Your task to perform on an android device: Open CNN.com Image 0: 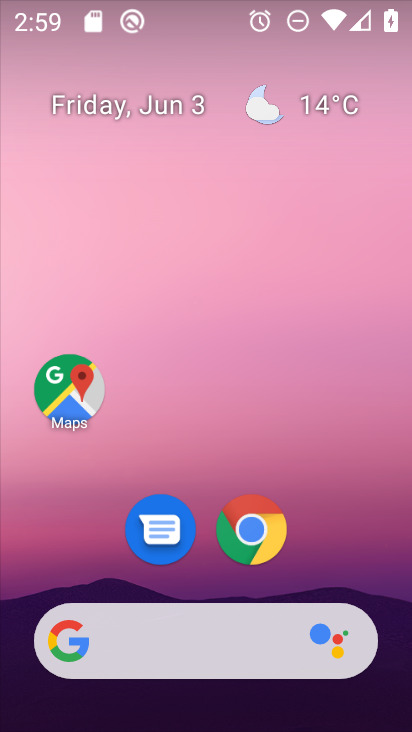
Step 0: drag from (371, 566) to (371, 236)
Your task to perform on an android device: Open CNN.com Image 1: 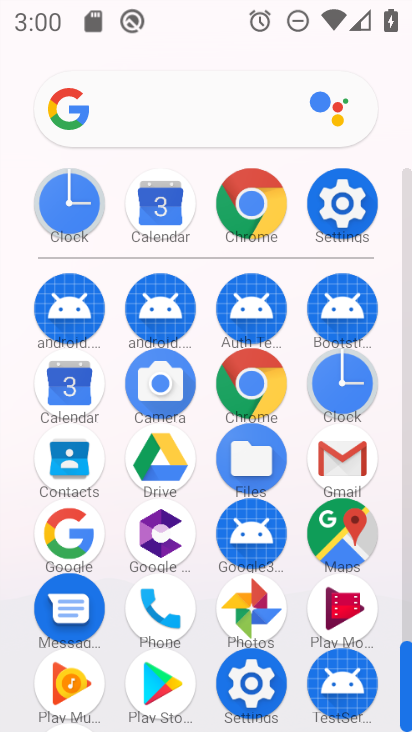
Step 1: click (264, 383)
Your task to perform on an android device: Open CNN.com Image 2: 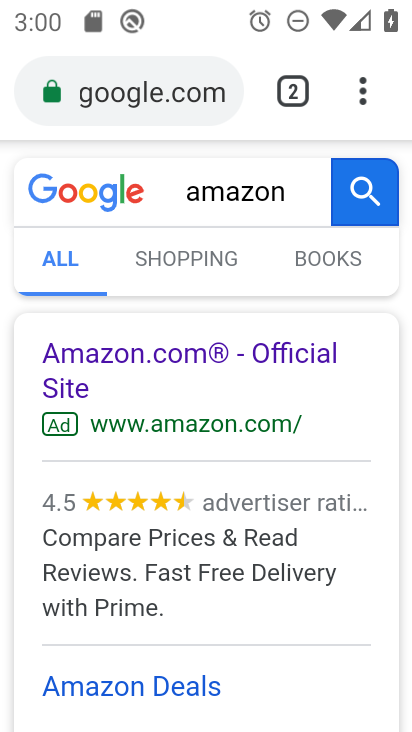
Step 2: click (195, 111)
Your task to perform on an android device: Open CNN.com Image 3: 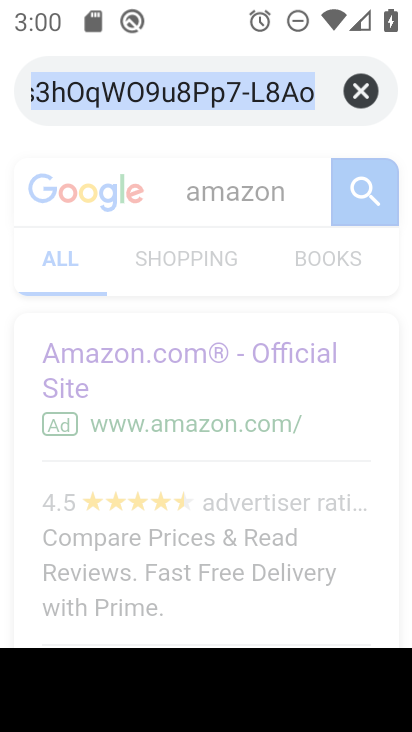
Step 3: click (370, 100)
Your task to perform on an android device: Open CNN.com Image 4: 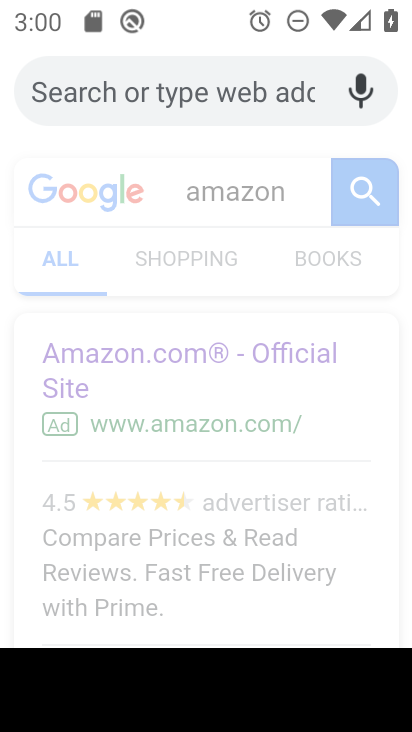
Step 4: type "cnn.com"
Your task to perform on an android device: Open CNN.com Image 5: 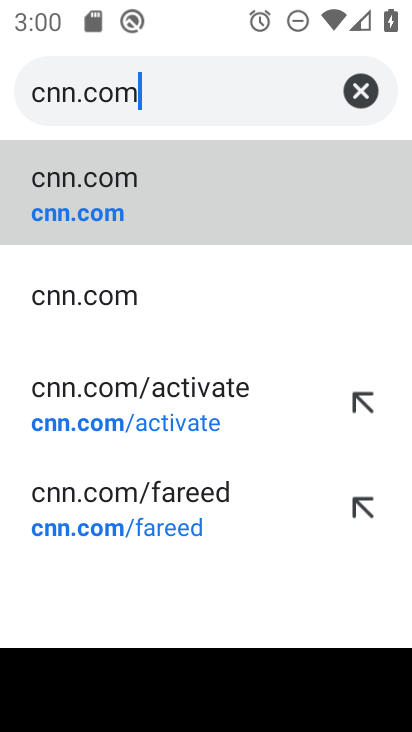
Step 5: click (158, 198)
Your task to perform on an android device: Open CNN.com Image 6: 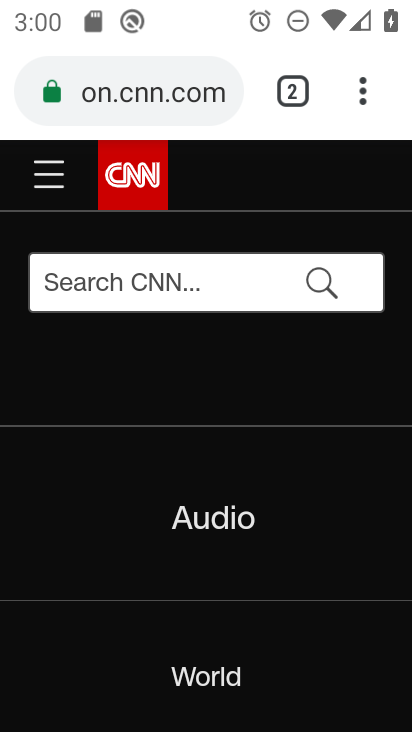
Step 6: task complete